Your task to perform on an android device: Open settings on Google Maps Image 0: 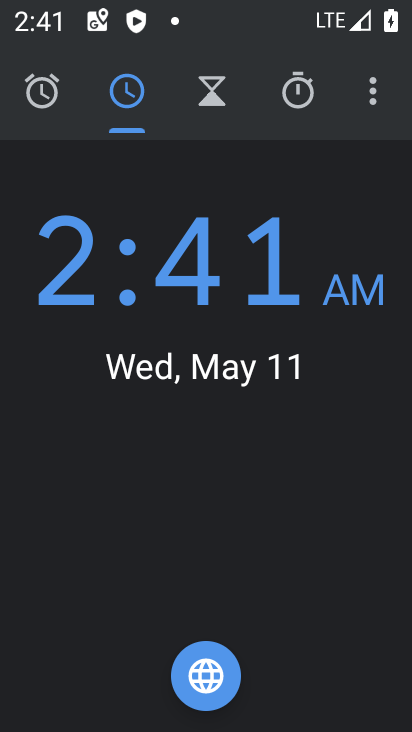
Step 0: press back button
Your task to perform on an android device: Open settings on Google Maps Image 1: 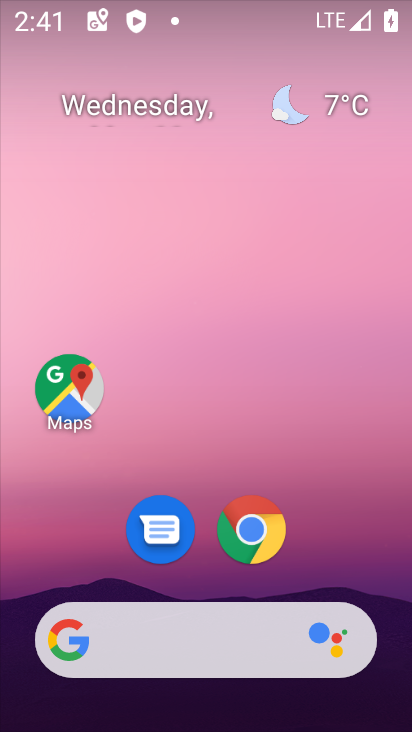
Step 1: click (74, 375)
Your task to perform on an android device: Open settings on Google Maps Image 2: 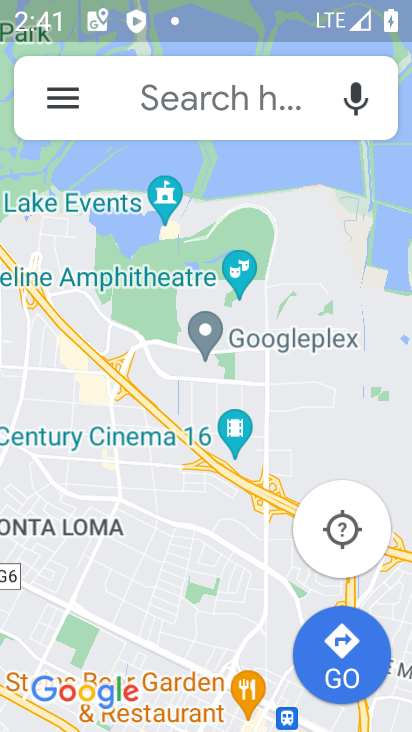
Step 2: click (68, 97)
Your task to perform on an android device: Open settings on Google Maps Image 3: 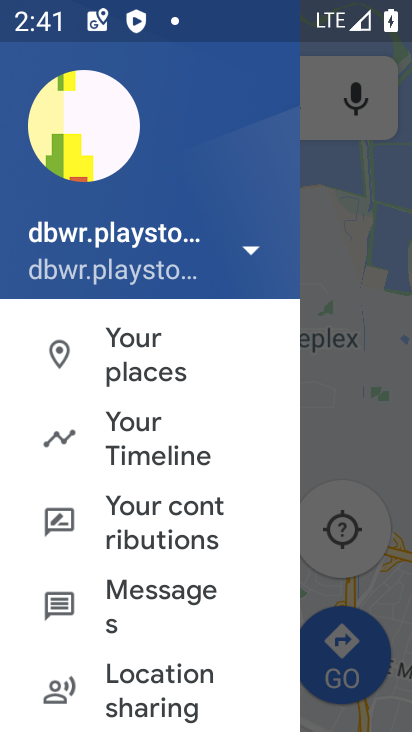
Step 3: drag from (120, 680) to (213, 109)
Your task to perform on an android device: Open settings on Google Maps Image 4: 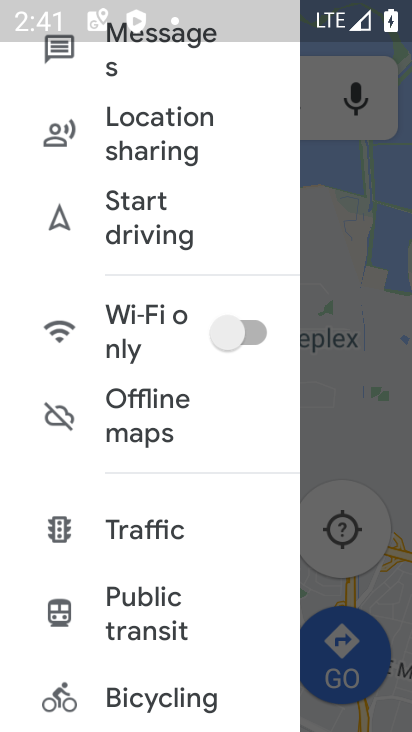
Step 4: drag from (102, 688) to (187, 273)
Your task to perform on an android device: Open settings on Google Maps Image 5: 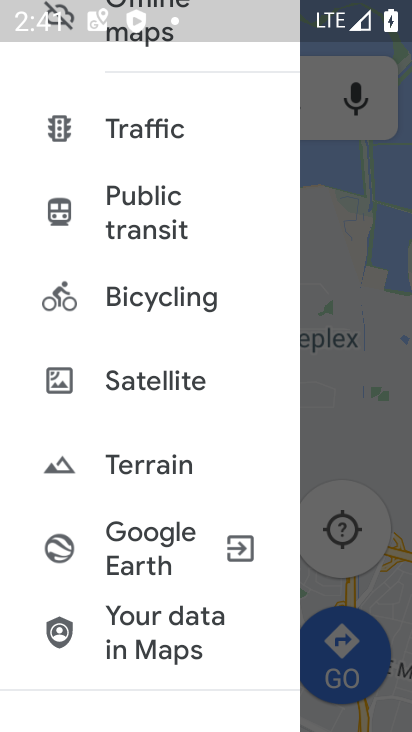
Step 5: drag from (128, 586) to (206, 170)
Your task to perform on an android device: Open settings on Google Maps Image 6: 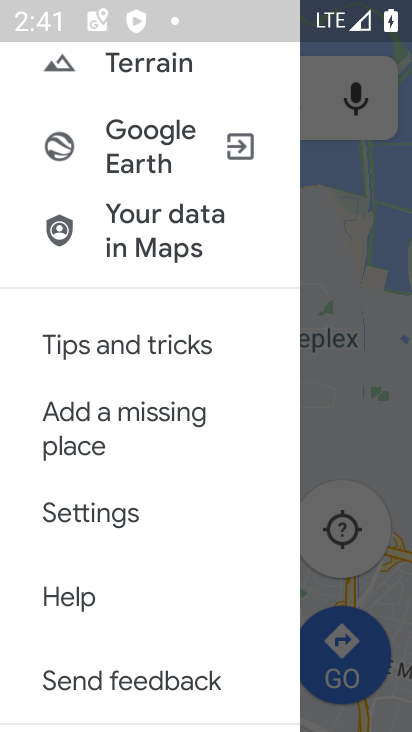
Step 6: click (99, 501)
Your task to perform on an android device: Open settings on Google Maps Image 7: 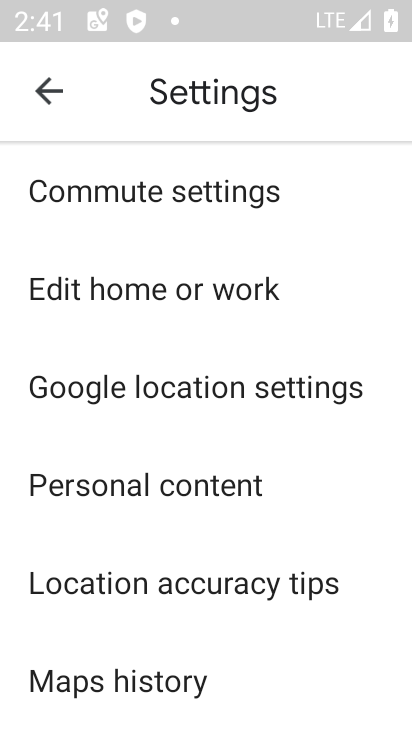
Step 7: task complete